Your task to perform on an android device: Who is the prime minister of the United Kingdom? Image 0: 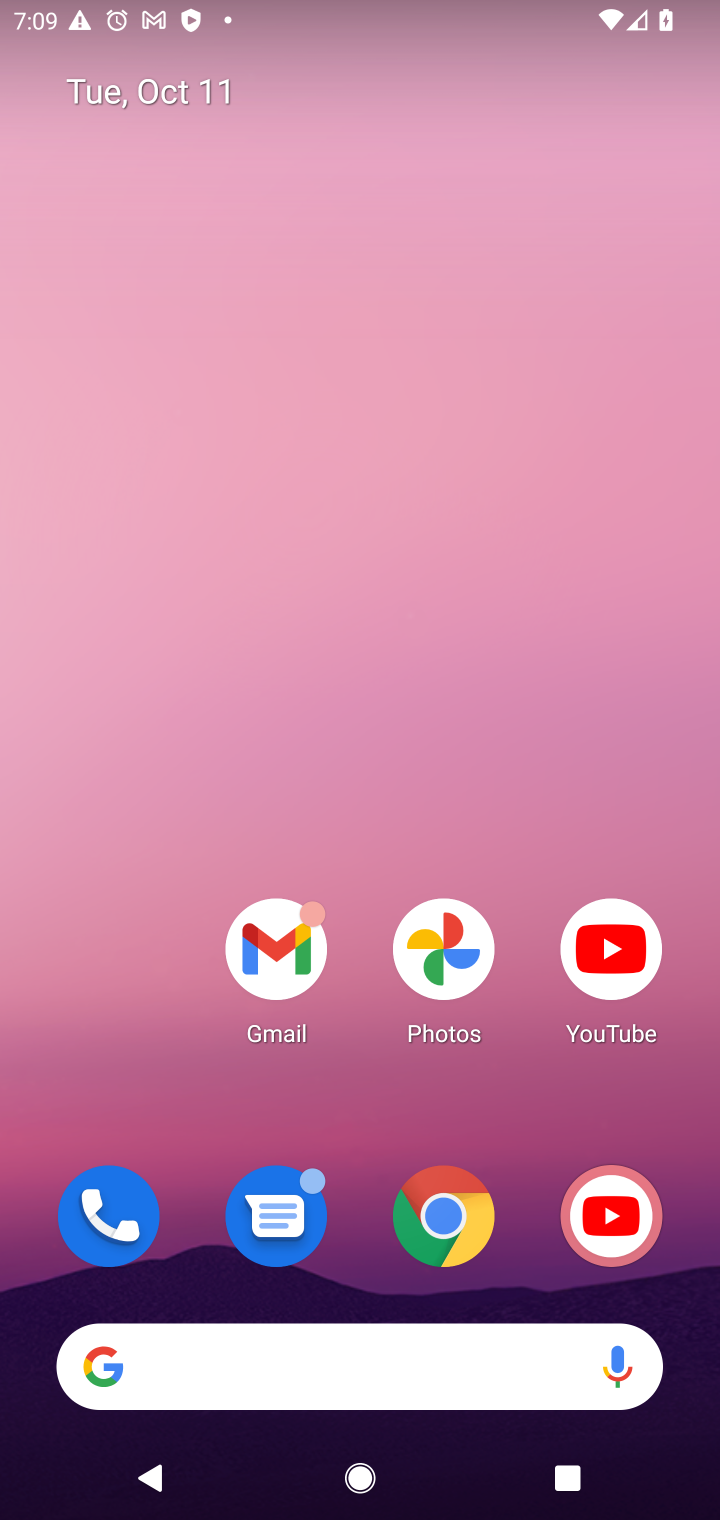
Step 0: click (492, 1210)
Your task to perform on an android device: Who is the prime minister of the United Kingdom? Image 1: 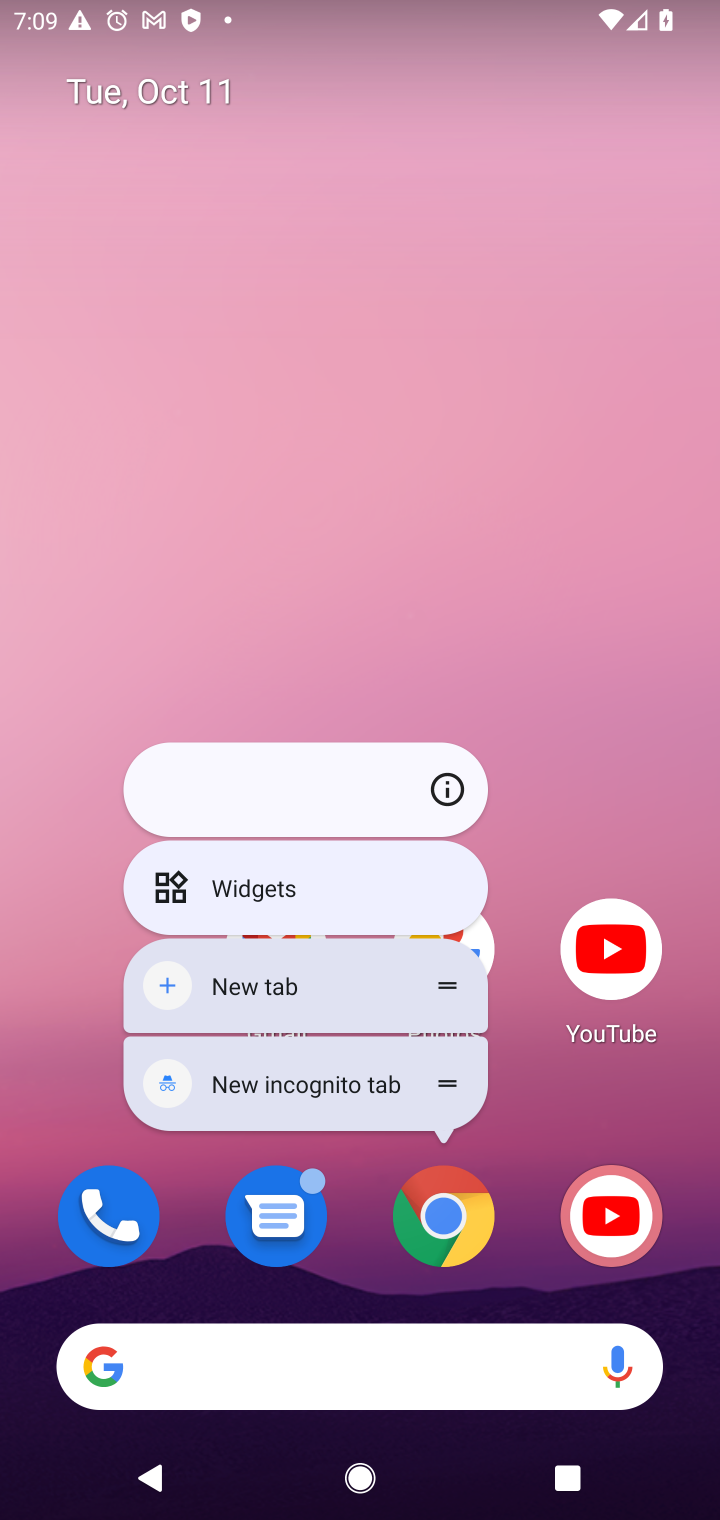
Step 1: click (485, 1221)
Your task to perform on an android device: Who is the prime minister of the United Kingdom? Image 2: 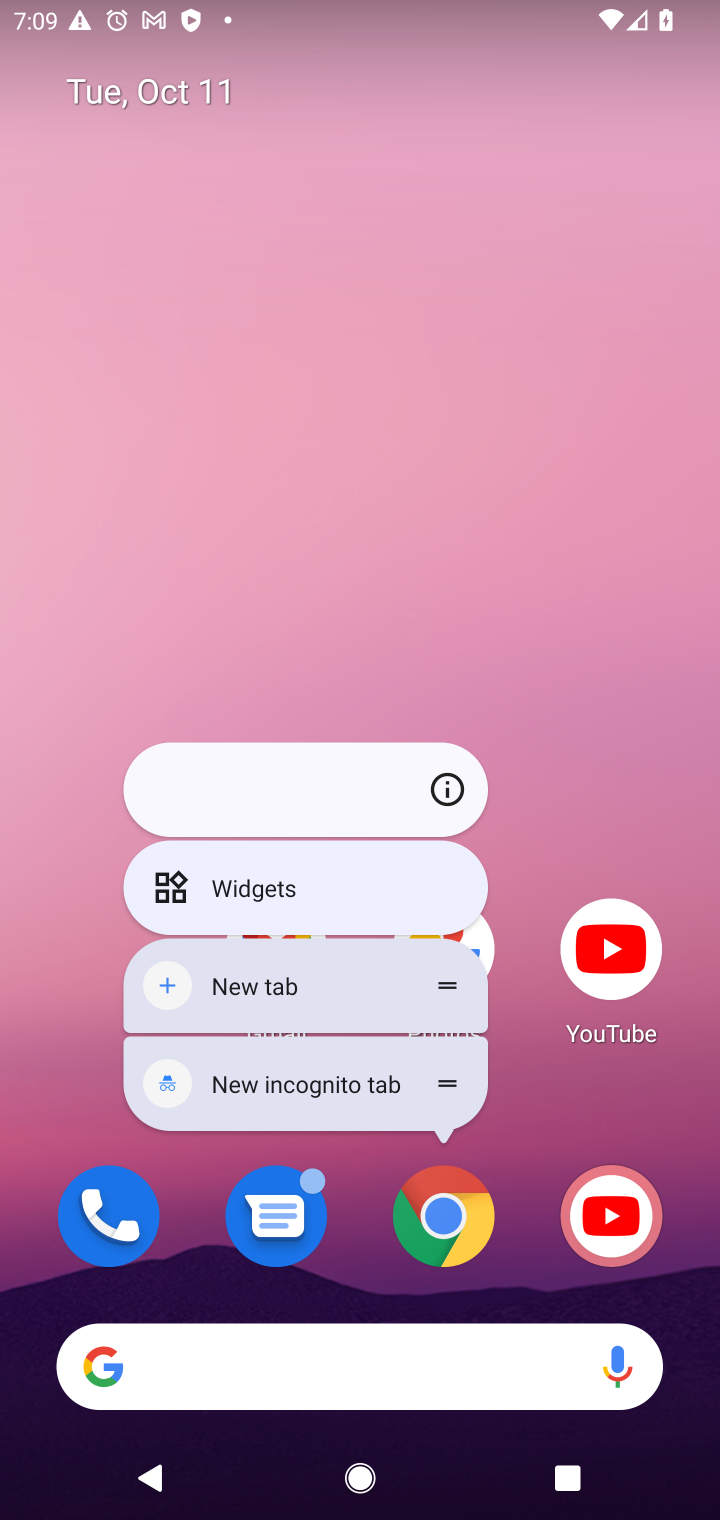
Step 2: click (485, 1221)
Your task to perform on an android device: Who is the prime minister of the United Kingdom? Image 3: 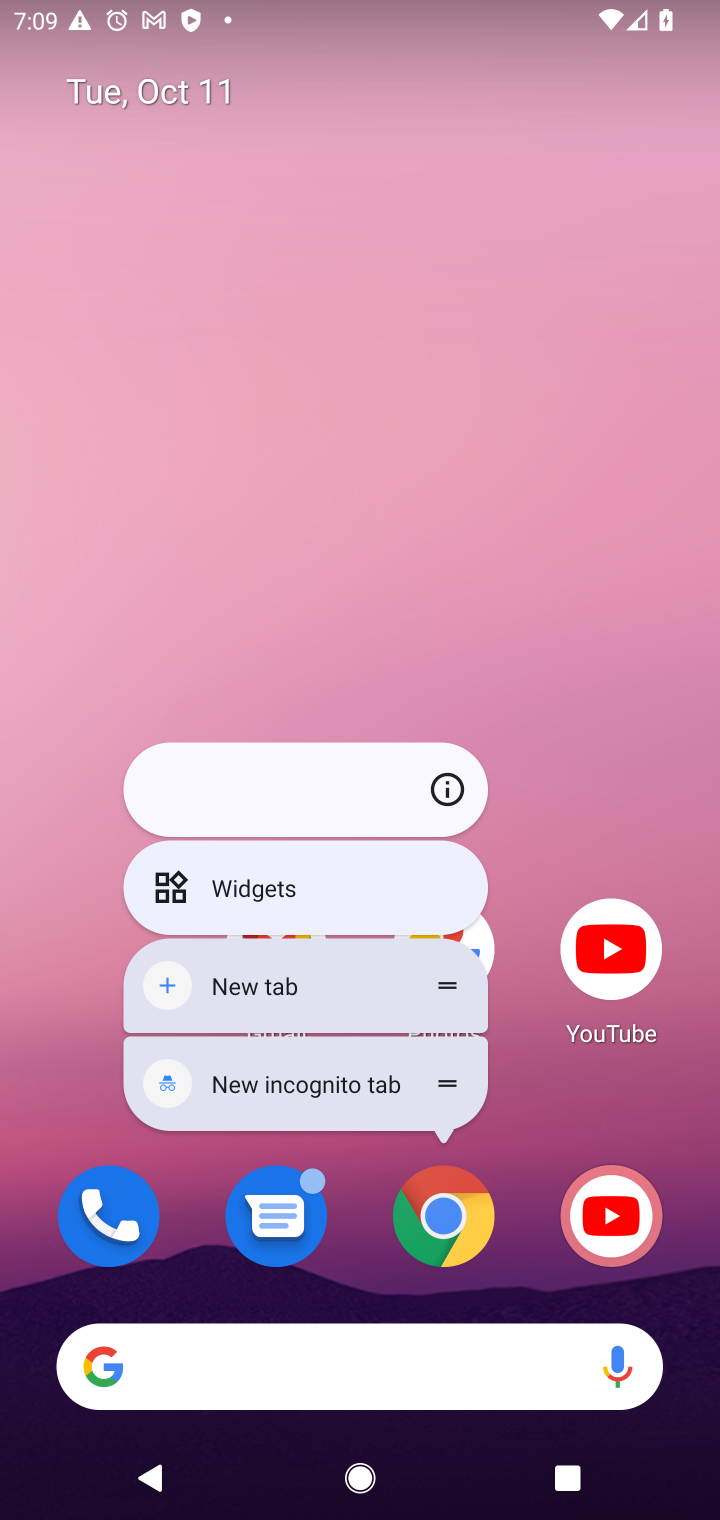
Step 3: click (485, 1221)
Your task to perform on an android device: Who is the prime minister of the United Kingdom? Image 4: 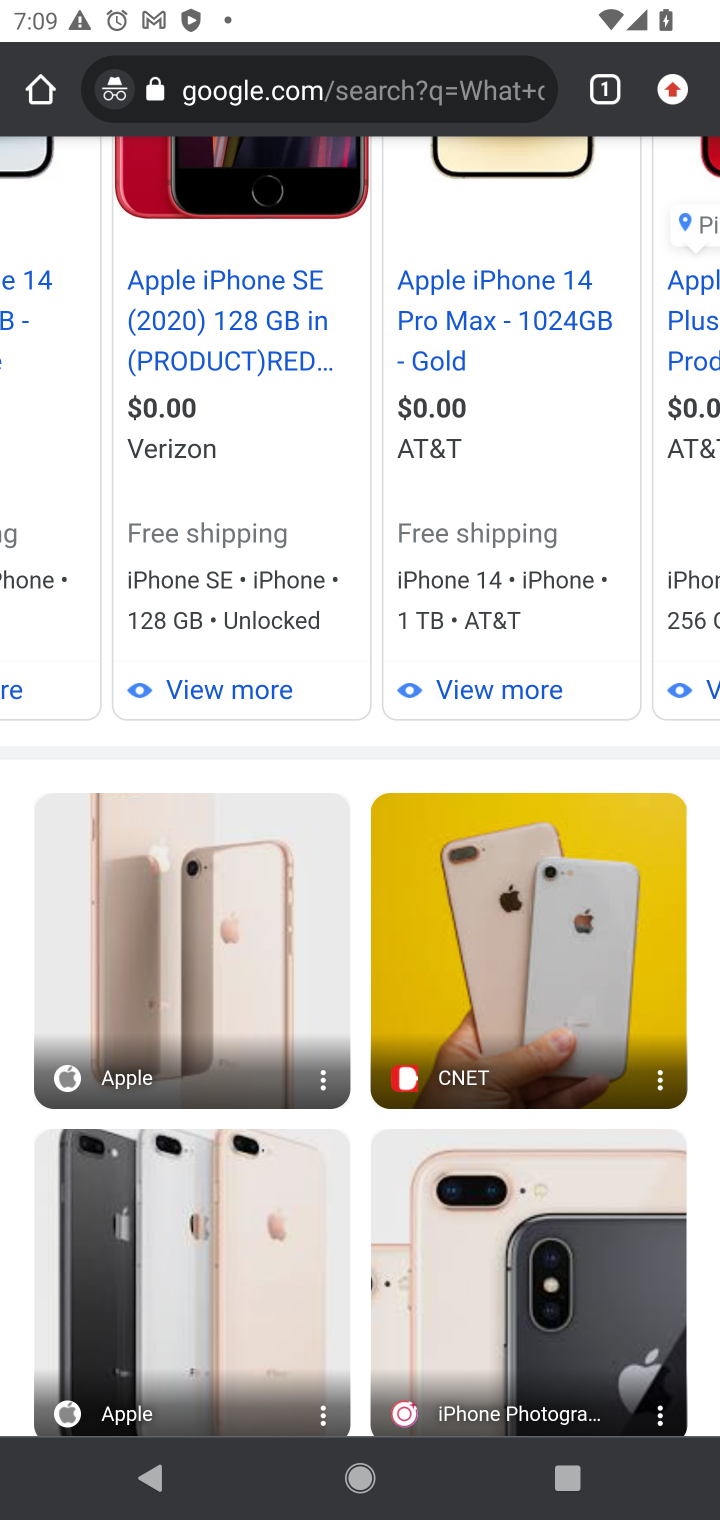
Step 4: click (393, 85)
Your task to perform on an android device: Who is the prime minister of the United Kingdom? Image 5: 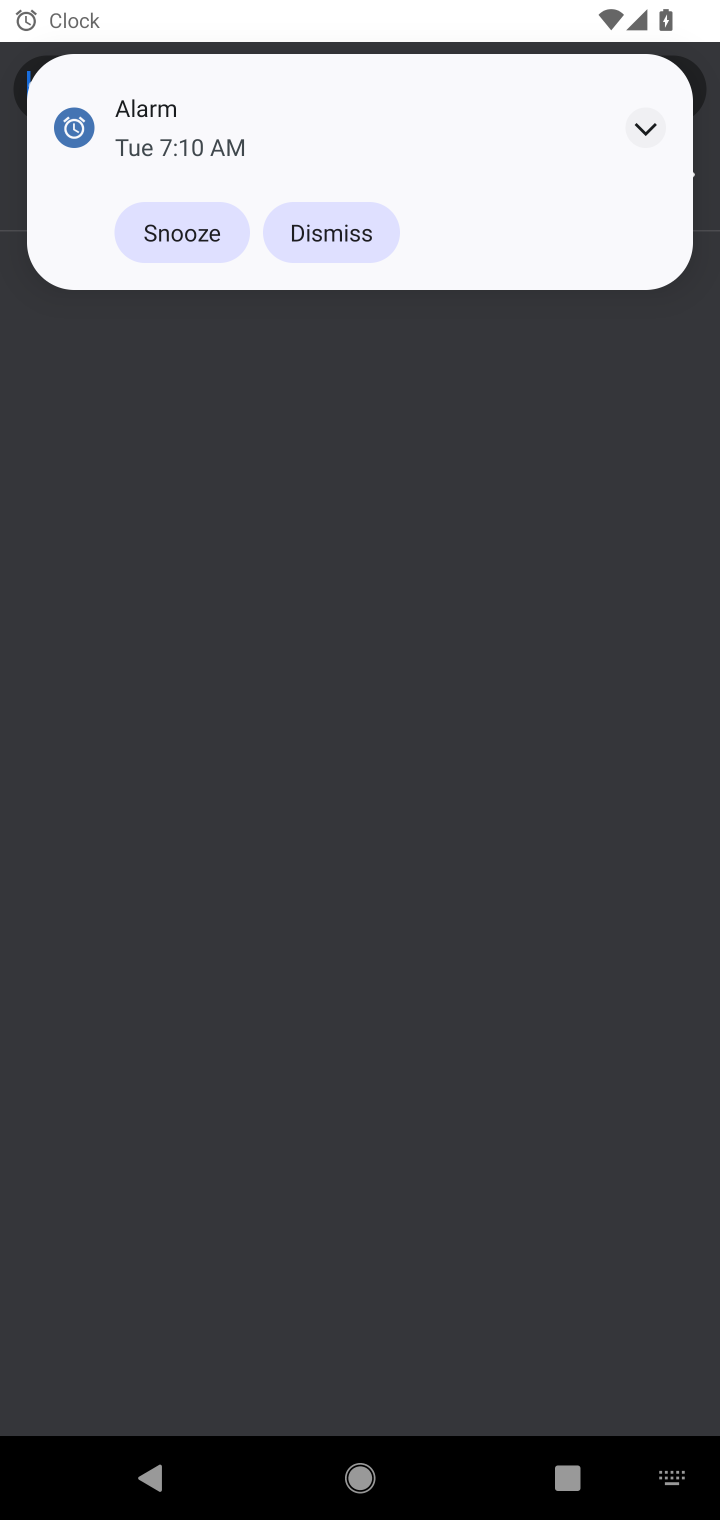
Step 5: type "Who is the prime minister of the United Kingdom?"
Your task to perform on an android device: Who is the prime minister of the United Kingdom? Image 6: 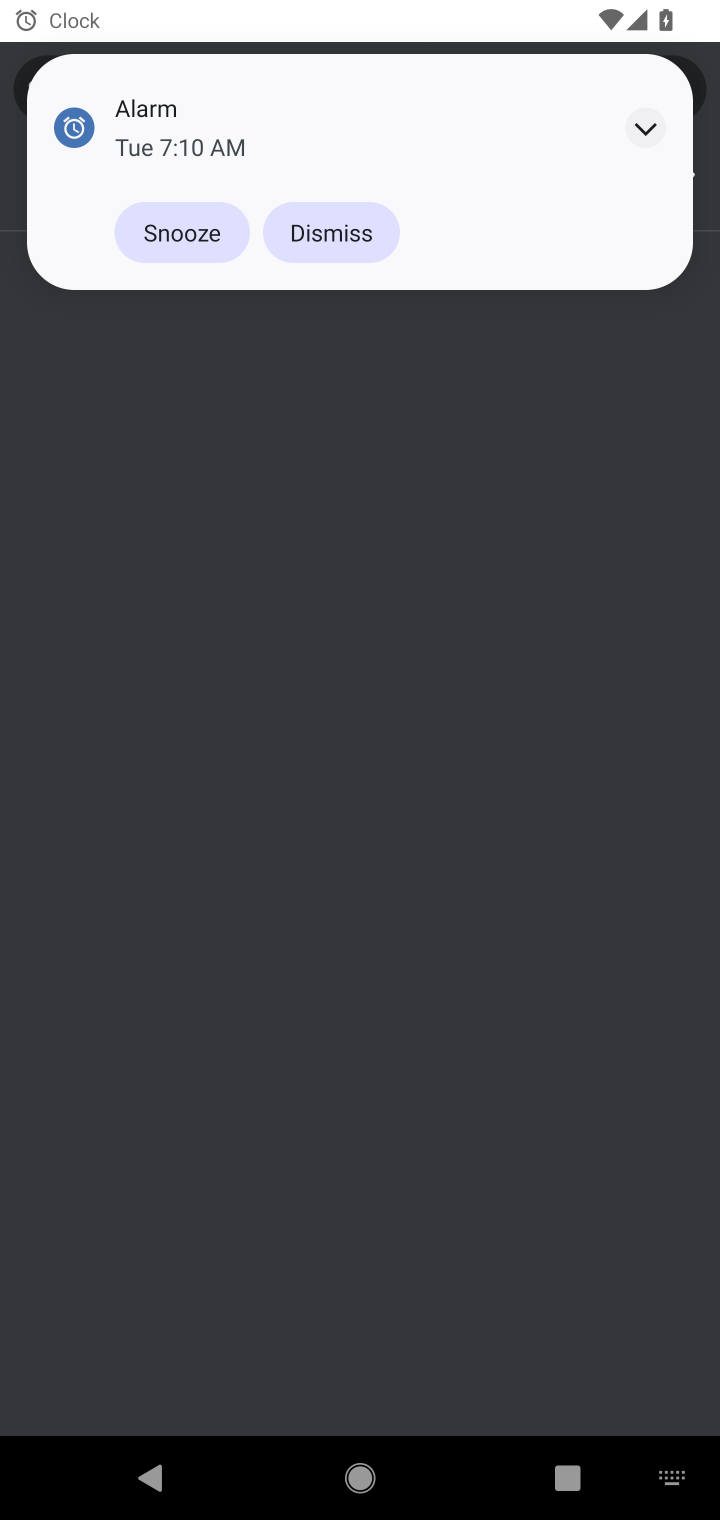
Step 6: click (340, 235)
Your task to perform on an android device: Who is the prime minister of the United Kingdom? Image 7: 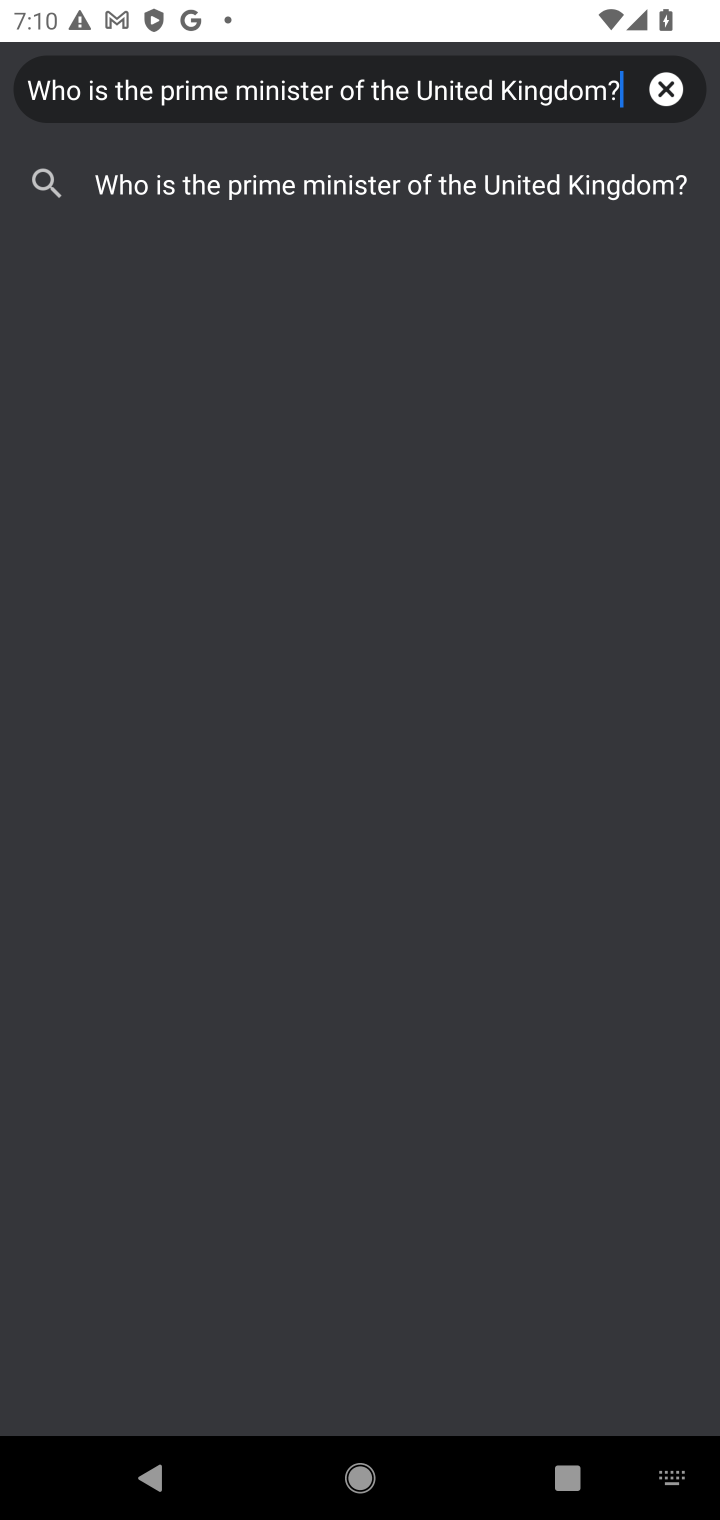
Step 7: press enter
Your task to perform on an android device: Who is the prime minister of the United Kingdom? Image 8: 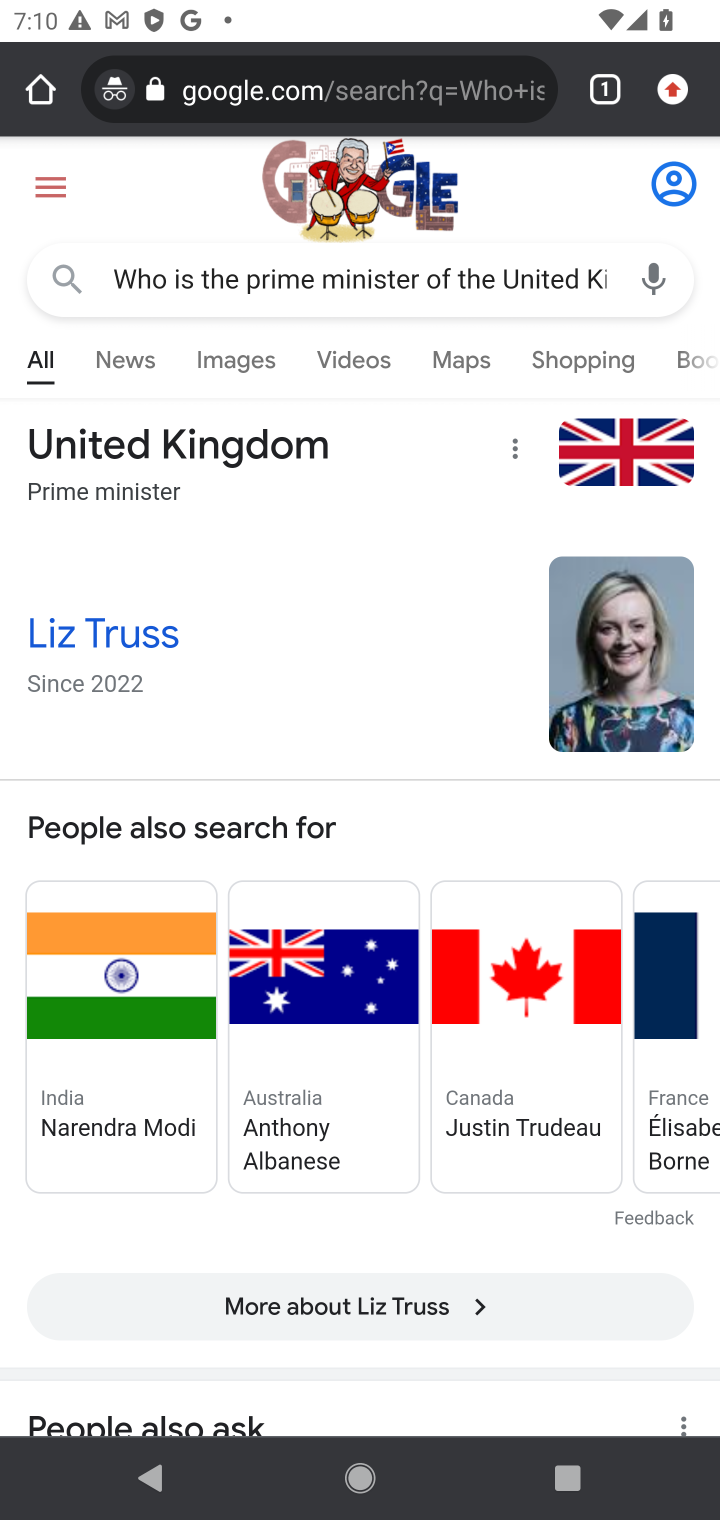
Step 8: task complete